Your task to perform on an android device: see creations saved in the google photos Image 0: 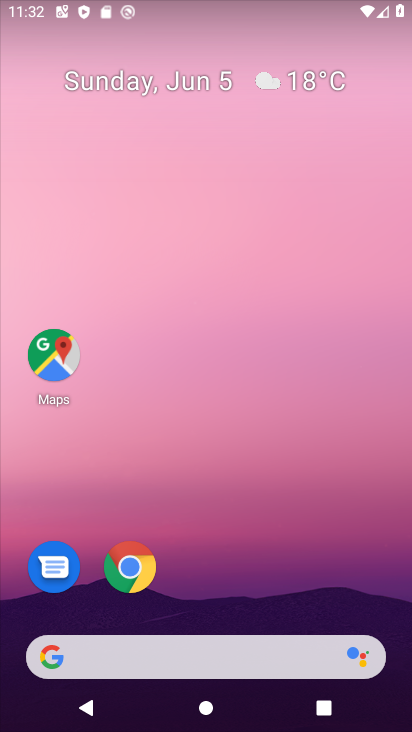
Step 0: drag from (257, 530) to (220, 3)
Your task to perform on an android device: see creations saved in the google photos Image 1: 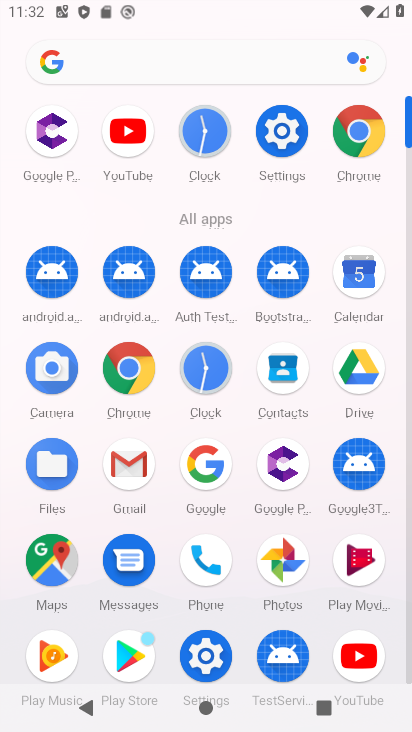
Step 1: click (286, 548)
Your task to perform on an android device: see creations saved in the google photos Image 2: 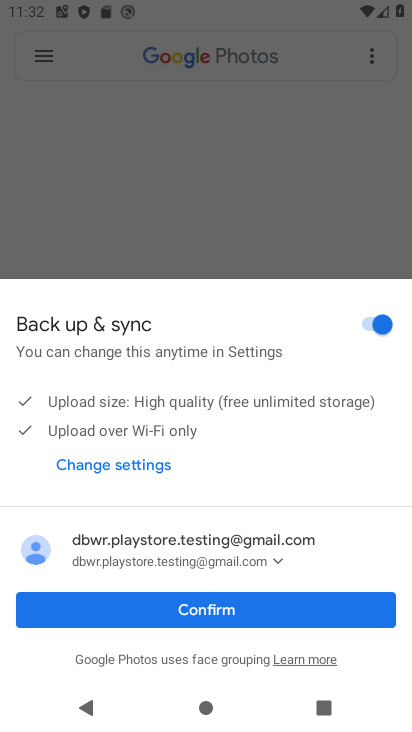
Step 2: click (273, 606)
Your task to perform on an android device: see creations saved in the google photos Image 3: 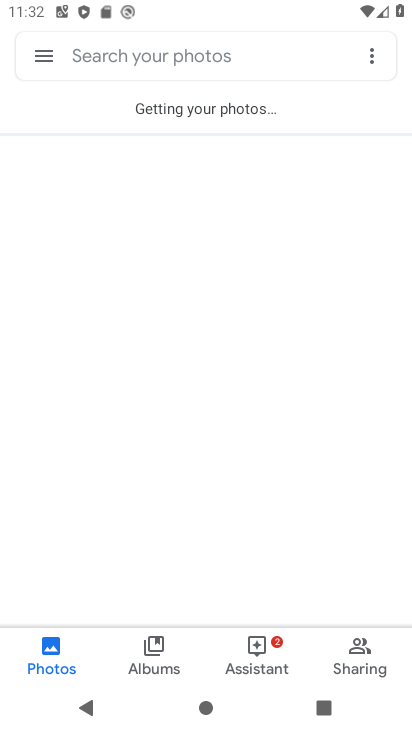
Step 3: click (219, 51)
Your task to perform on an android device: see creations saved in the google photos Image 4: 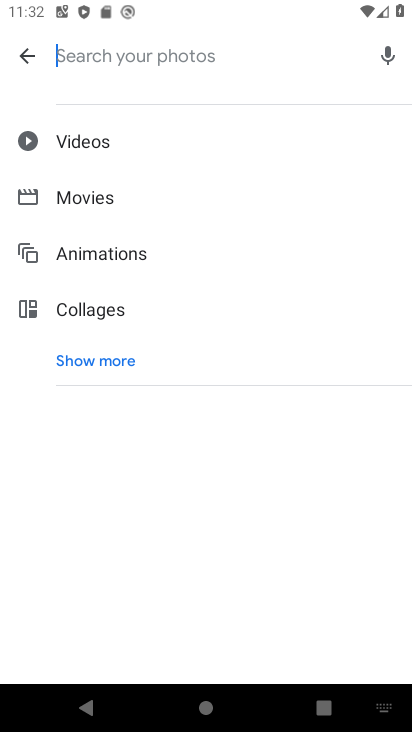
Step 4: click (111, 349)
Your task to perform on an android device: see creations saved in the google photos Image 5: 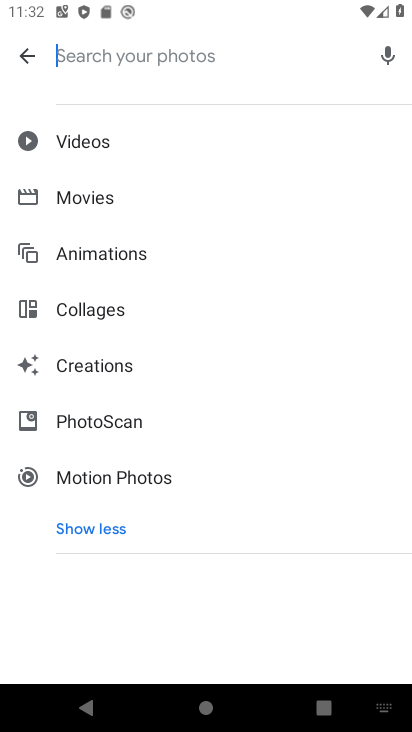
Step 5: click (109, 360)
Your task to perform on an android device: see creations saved in the google photos Image 6: 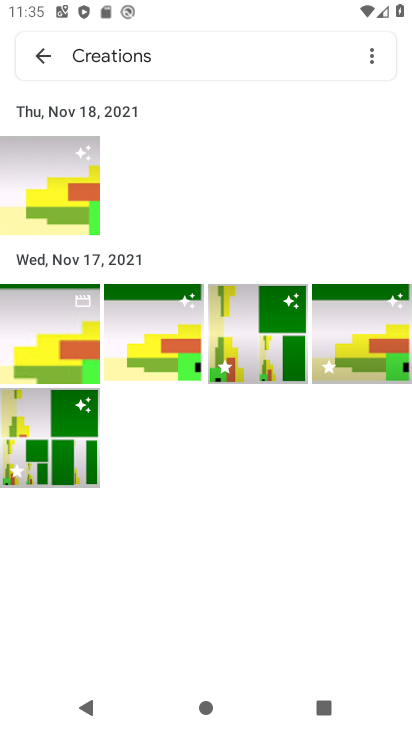
Step 6: task complete